Your task to perform on an android device: snooze an email in the gmail app Image 0: 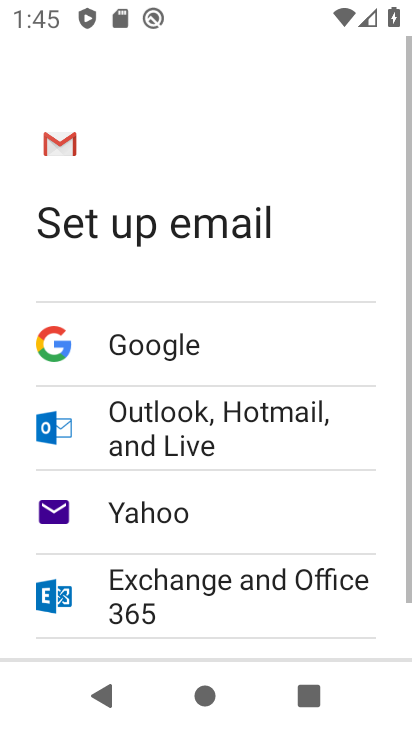
Step 0: press back button
Your task to perform on an android device: snooze an email in the gmail app Image 1: 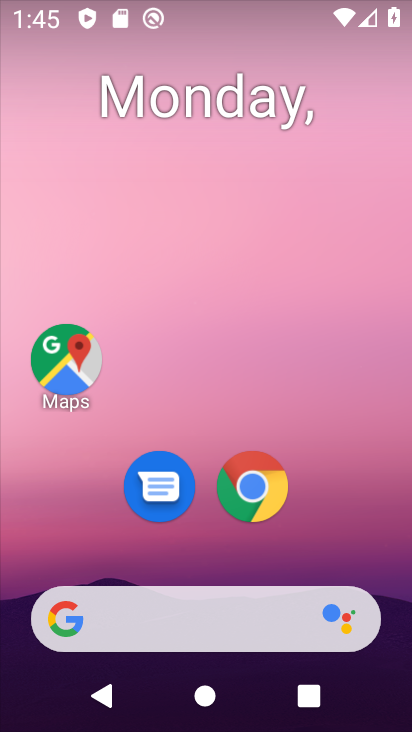
Step 1: drag from (240, 434) to (314, 24)
Your task to perform on an android device: snooze an email in the gmail app Image 2: 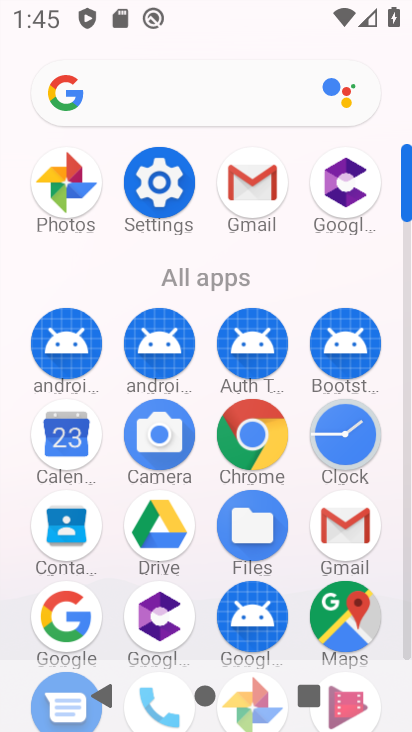
Step 2: click (241, 190)
Your task to perform on an android device: snooze an email in the gmail app Image 3: 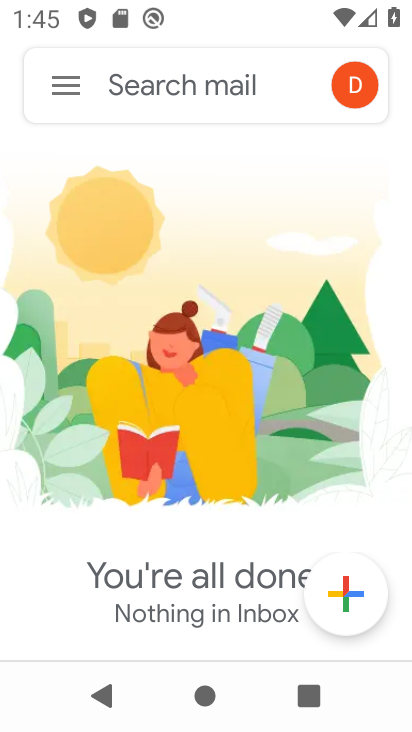
Step 3: click (74, 88)
Your task to perform on an android device: snooze an email in the gmail app Image 4: 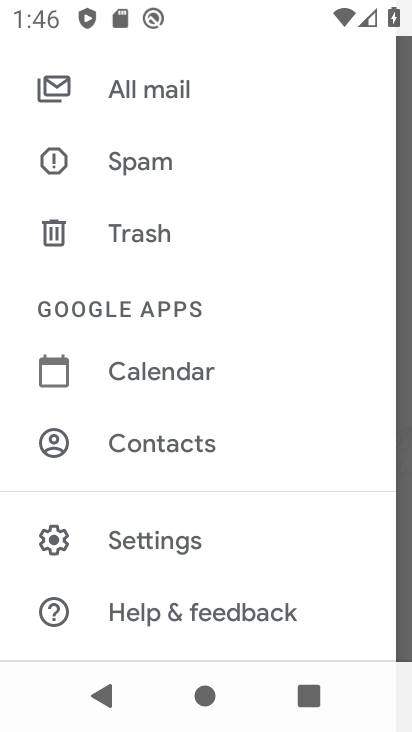
Step 4: drag from (116, 560) to (254, 140)
Your task to perform on an android device: snooze an email in the gmail app Image 5: 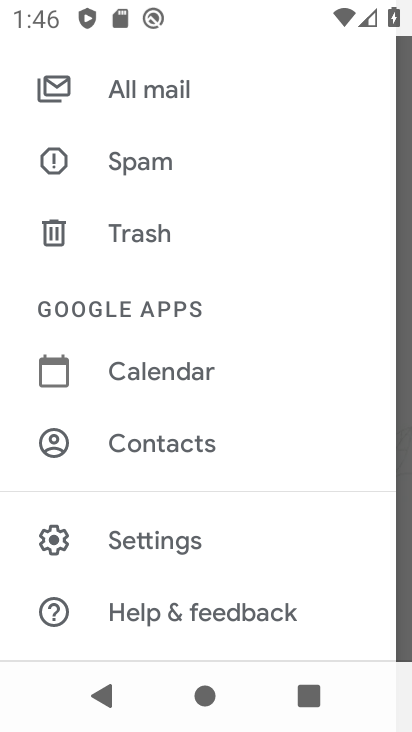
Step 5: drag from (266, 407) to (278, 176)
Your task to perform on an android device: snooze an email in the gmail app Image 6: 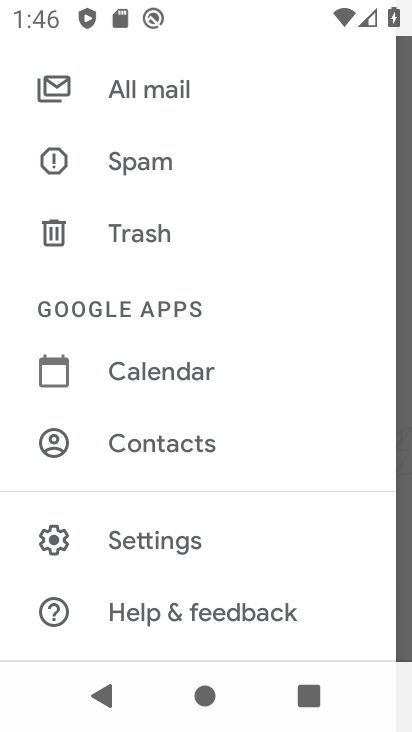
Step 6: drag from (263, 87) to (341, 565)
Your task to perform on an android device: snooze an email in the gmail app Image 7: 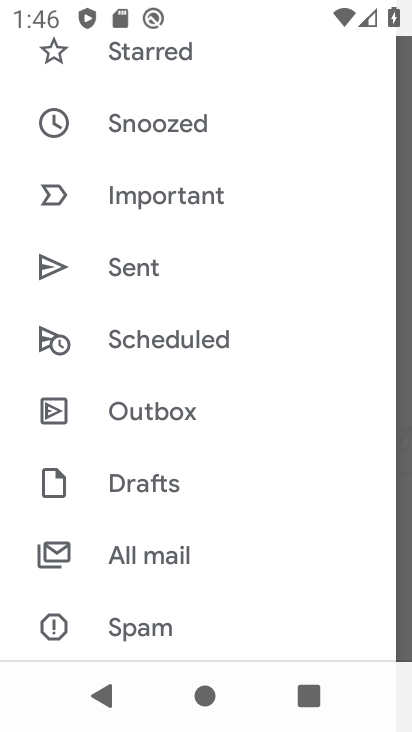
Step 7: drag from (313, 102) to (282, 564)
Your task to perform on an android device: snooze an email in the gmail app Image 8: 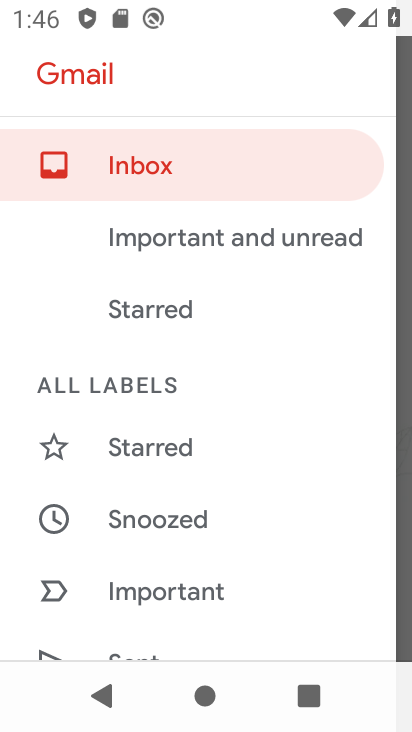
Step 8: click (224, 167)
Your task to perform on an android device: snooze an email in the gmail app Image 9: 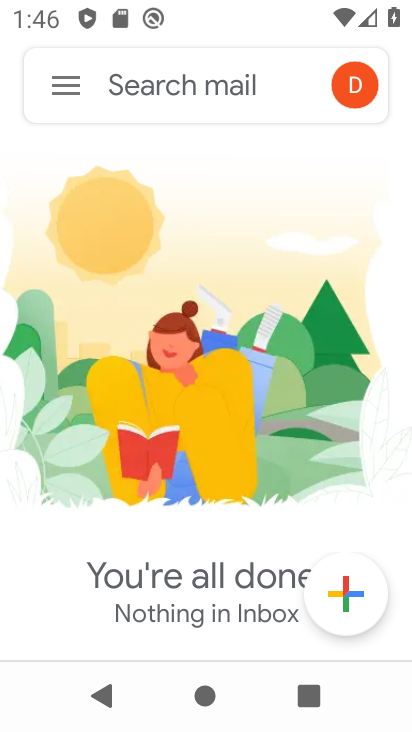
Step 9: task complete